Your task to perform on an android device: turn on airplane mode Image 0: 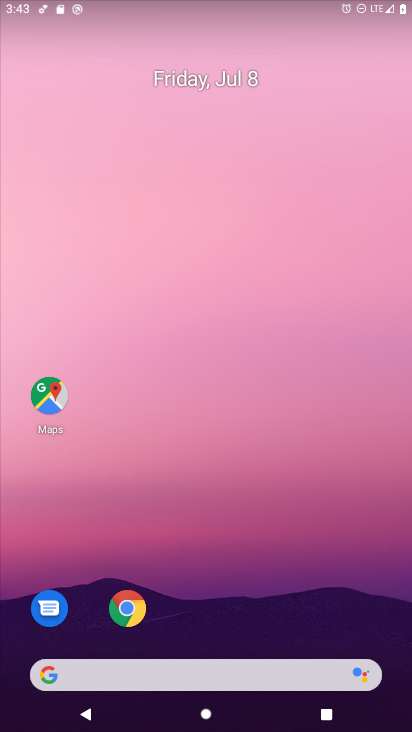
Step 0: drag from (322, 666) to (354, 35)
Your task to perform on an android device: turn on airplane mode Image 1: 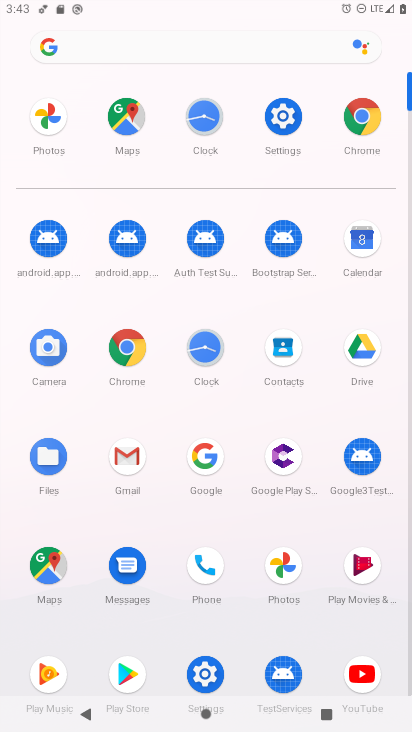
Step 1: click (290, 127)
Your task to perform on an android device: turn on airplane mode Image 2: 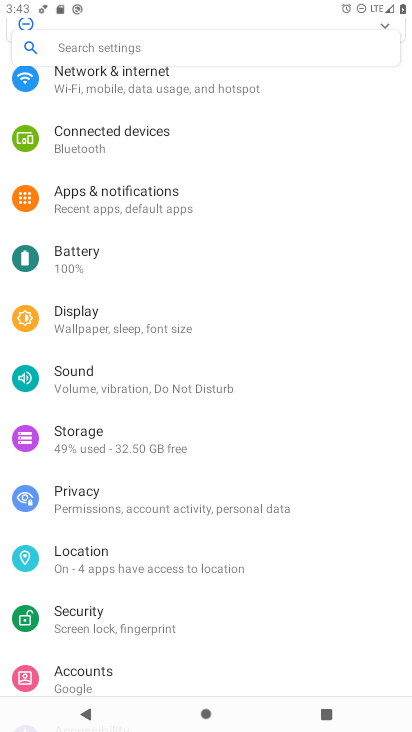
Step 2: click (131, 85)
Your task to perform on an android device: turn on airplane mode Image 3: 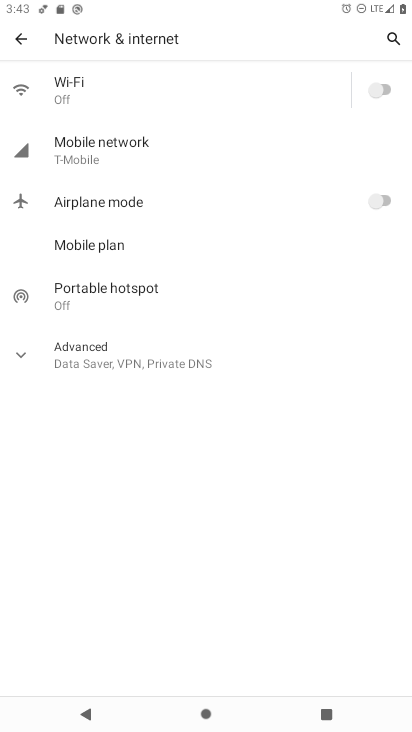
Step 3: click (385, 205)
Your task to perform on an android device: turn on airplane mode Image 4: 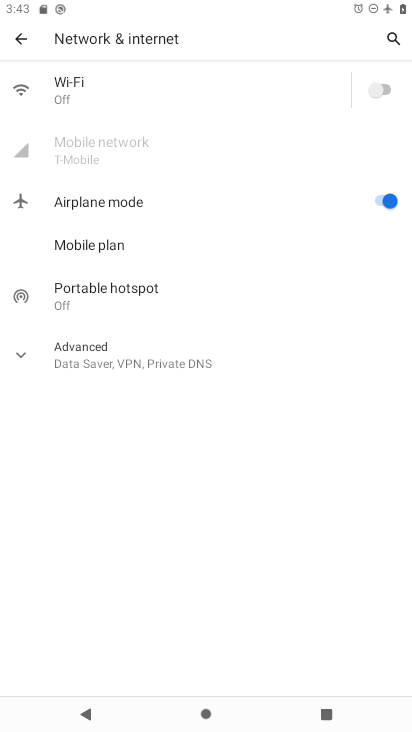
Step 4: task complete